Your task to perform on an android device: When is my next appointment? Image 0: 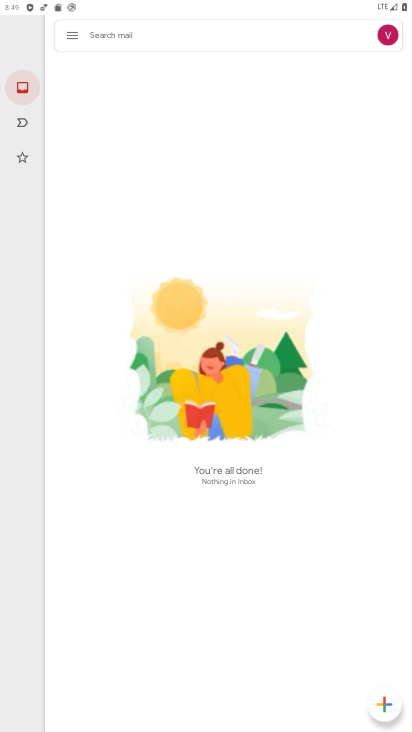
Step 0: press home button
Your task to perform on an android device: When is my next appointment? Image 1: 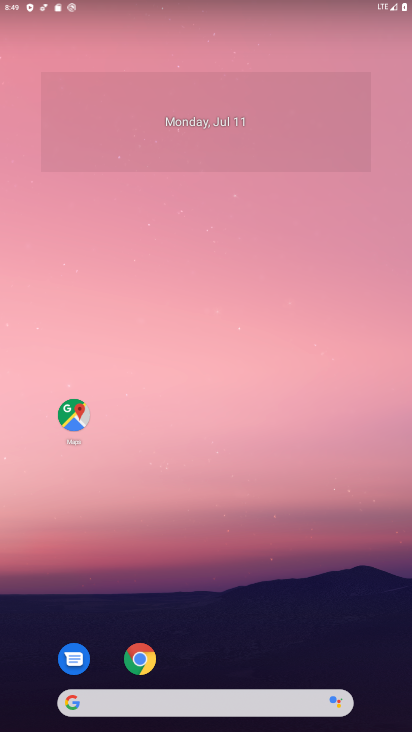
Step 1: drag from (65, 670) to (178, 15)
Your task to perform on an android device: When is my next appointment? Image 2: 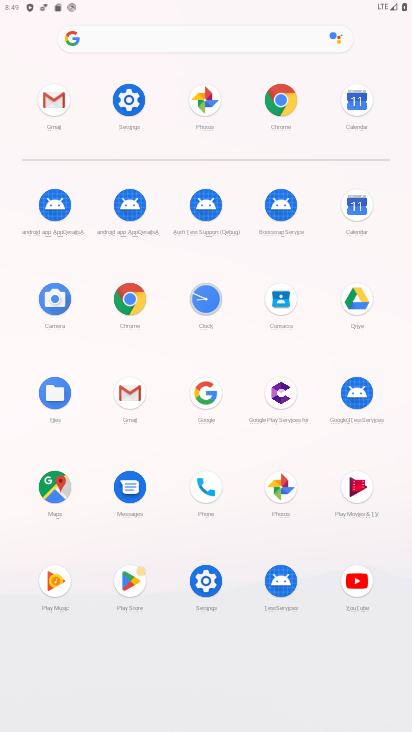
Step 2: click (358, 225)
Your task to perform on an android device: When is my next appointment? Image 3: 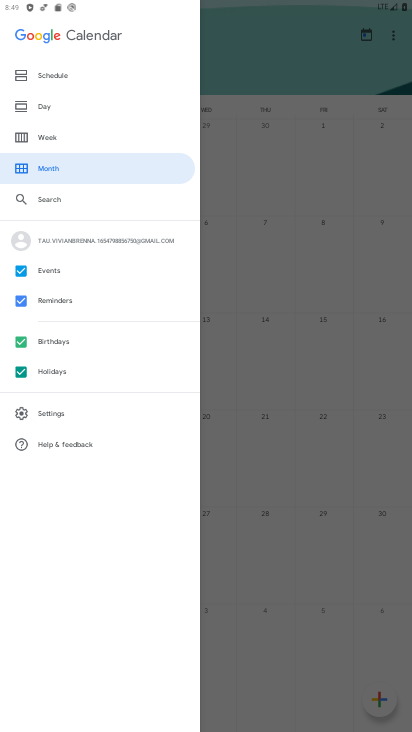
Step 3: click (298, 53)
Your task to perform on an android device: When is my next appointment? Image 4: 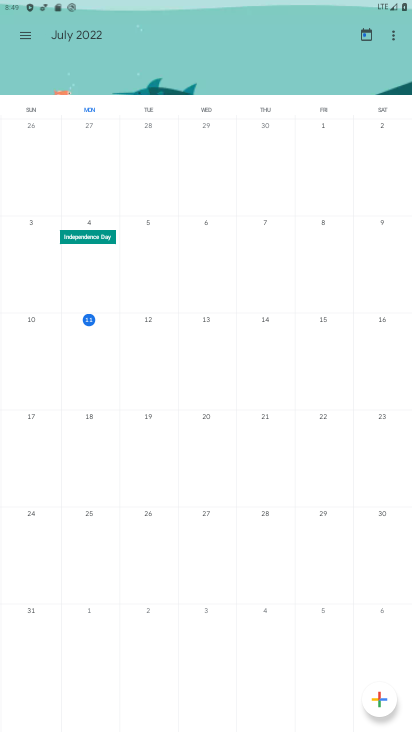
Step 4: task complete